Your task to perform on an android device: Turn on the flashlight Image 0: 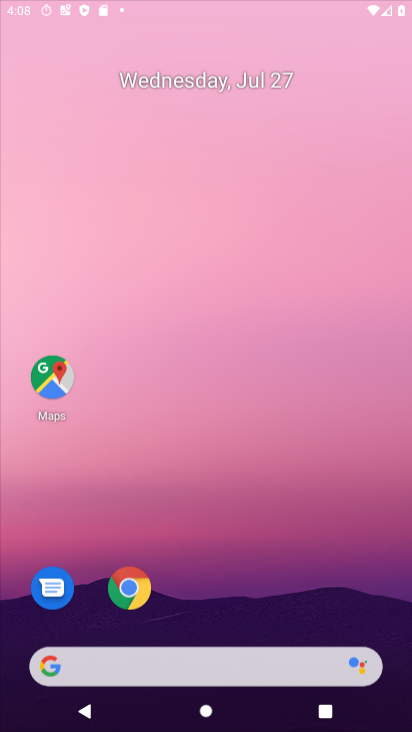
Step 0: press home button
Your task to perform on an android device: Turn on the flashlight Image 1: 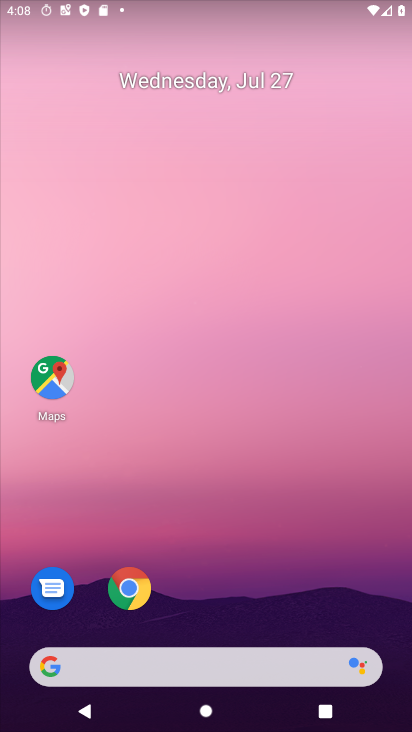
Step 1: task complete